Your task to perform on an android device: Show the shopping cart on amazon.com. Image 0: 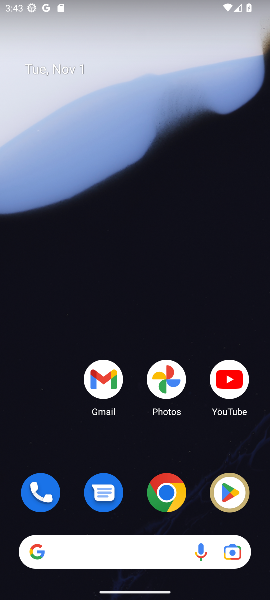
Step 0: click (167, 498)
Your task to perform on an android device: Show the shopping cart on amazon.com. Image 1: 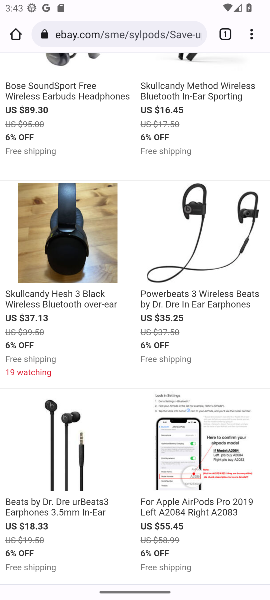
Step 1: click (87, 30)
Your task to perform on an android device: Show the shopping cart on amazon.com. Image 2: 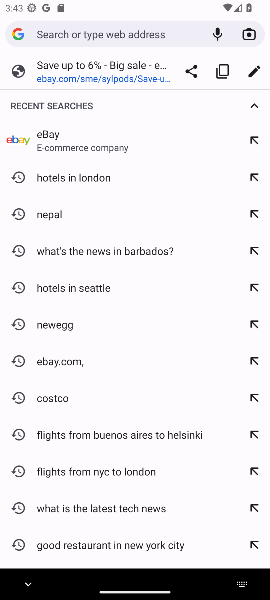
Step 2: type "amazon.com"
Your task to perform on an android device: Show the shopping cart on amazon.com. Image 3: 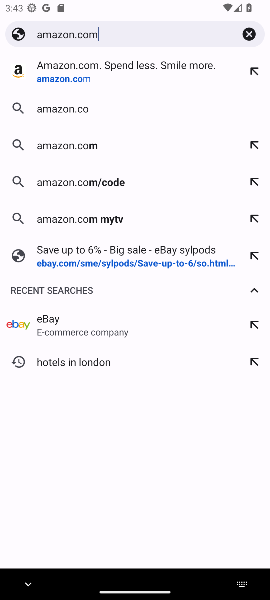
Step 3: type ""
Your task to perform on an android device: Show the shopping cart on amazon.com. Image 4: 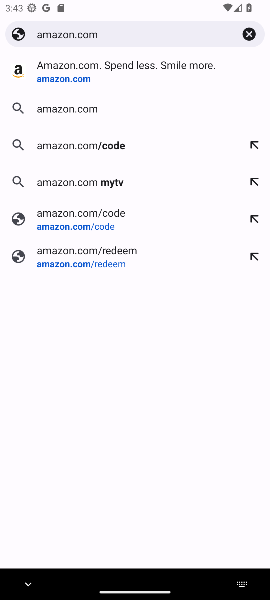
Step 4: click (52, 83)
Your task to perform on an android device: Show the shopping cart on amazon.com. Image 5: 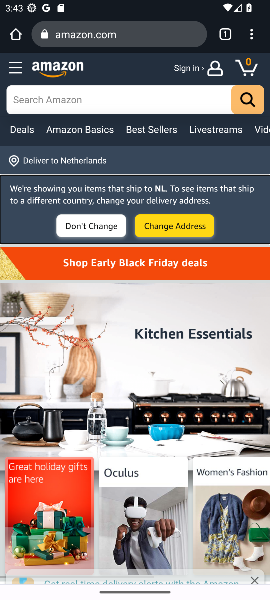
Step 5: click (98, 226)
Your task to perform on an android device: Show the shopping cart on amazon.com. Image 6: 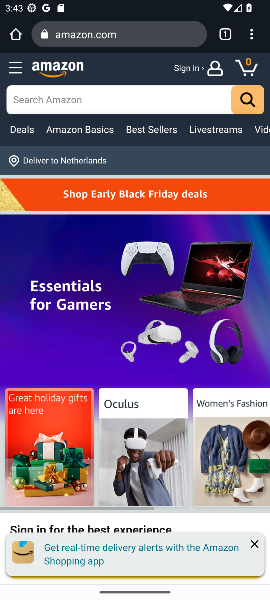
Step 6: click (241, 69)
Your task to perform on an android device: Show the shopping cart on amazon.com. Image 7: 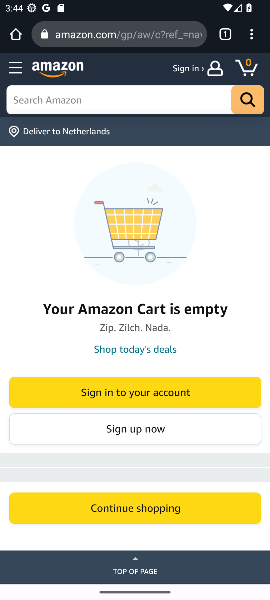
Step 7: drag from (128, 422) to (155, 226)
Your task to perform on an android device: Show the shopping cart on amazon.com. Image 8: 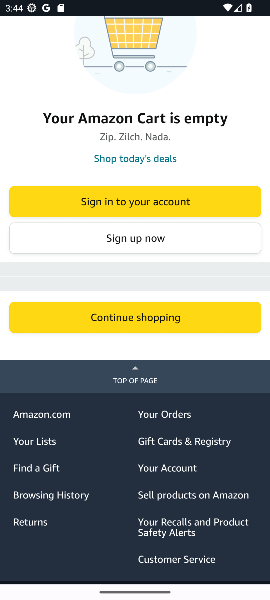
Step 8: click (143, 323)
Your task to perform on an android device: Show the shopping cart on amazon.com. Image 9: 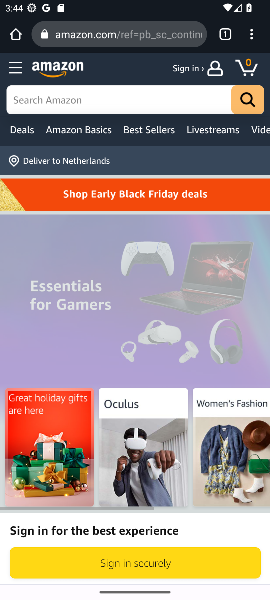
Step 9: drag from (155, 410) to (191, 241)
Your task to perform on an android device: Show the shopping cart on amazon.com. Image 10: 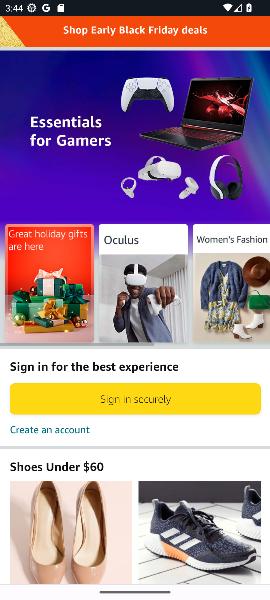
Step 10: drag from (167, 321) to (178, 174)
Your task to perform on an android device: Show the shopping cart on amazon.com. Image 11: 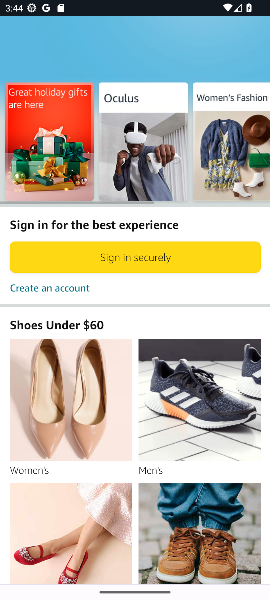
Step 11: click (181, 147)
Your task to perform on an android device: Show the shopping cart on amazon.com. Image 12: 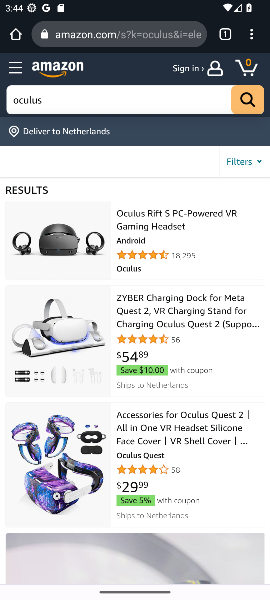
Step 12: drag from (185, 181) to (191, 142)
Your task to perform on an android device: Show the shopping cart on amazon.com. Image 13: 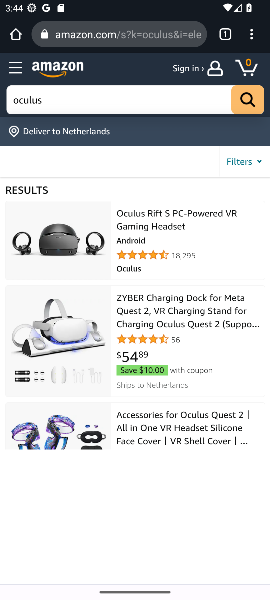
Step 13: drag from (129, 378) to (170, 129)
Your task to perform on an android device: Show the shopping cart on amazon.com. Image 14: 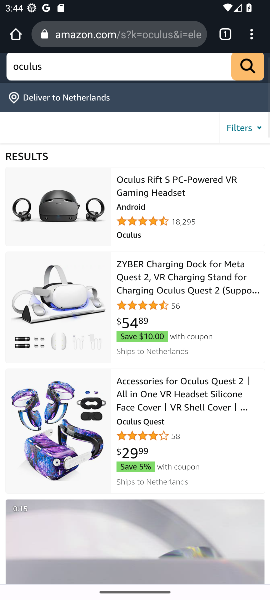
Step 14: drag from (123, 354) to (173, 141)
Your task to perform on an android device: Show the shopping cart on amazon.com. Image 15: 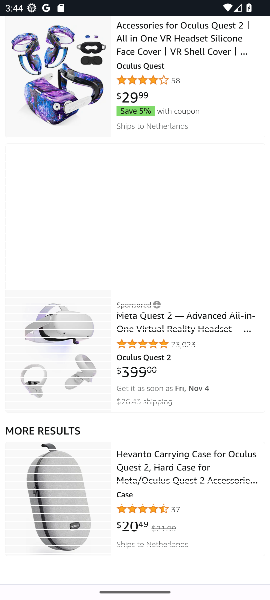
Step 15: drag from (131, 318) to (174, 145)
Your task to perform on an android device: Show the shopping cart on amazon.com. Image 16: 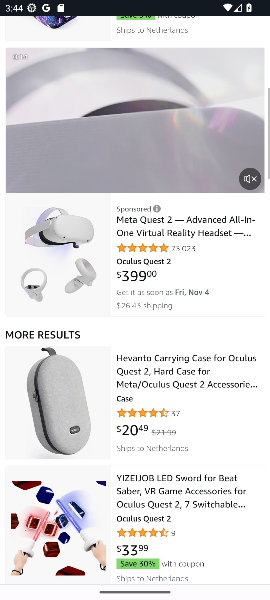
Step 16: drag from (170, 288) to (184, 161)
Your task to perform on an android device: Show the shopping cart on amazon.com. Image 17: 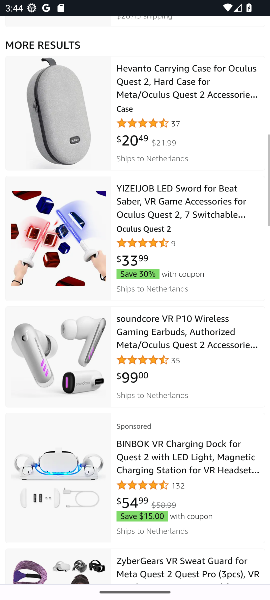
Step 17: drag from (161, 336) to (184, 149)
Your task to perform on an android device: Show the shopping cart on amazon.com. Image 18: 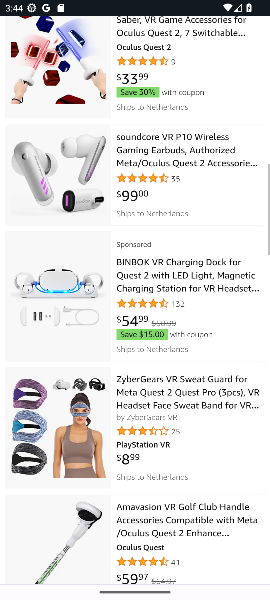
Step 18: drag from (188, 281) to (212, 99)
Your task to perform on an android device: Show the shopping cart on amazon.com. Image 19: 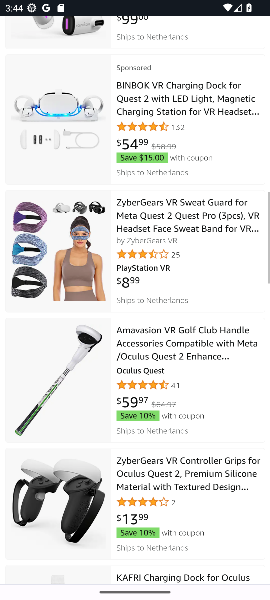
Step 19: drag from (162, 272) to (192, 148)
Your task to perform on an android device: Show the shopping cart on amazon.com. Image 20: 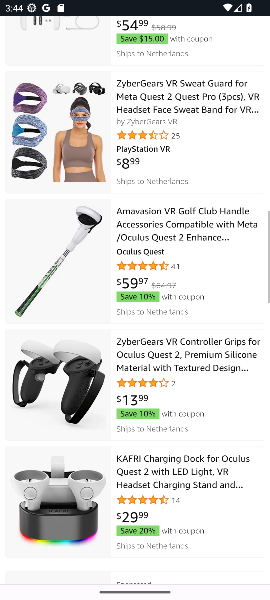
Step 20: drag from (167, 200) to (177, 152)
Your task to perform on an android device: Show the shopping cart on amazon.com. Image 21: 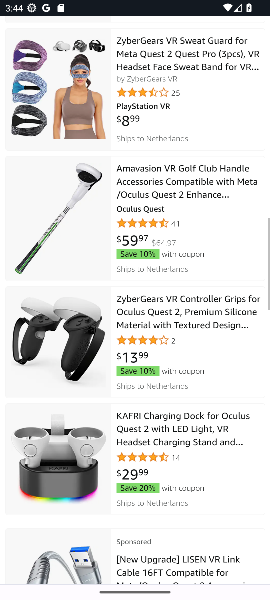
Step 21: drag from (148, 398) to (167, 86)
Your task to perform on an android device: Show the shopping cart on amazon.com. Image 22: 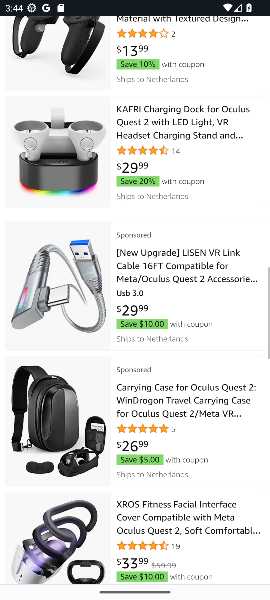
Step 22: drag from (136, 272) to (174, 91)
Your task to perform on an android device: Show the shopping cart on amazon.com. Image 23: 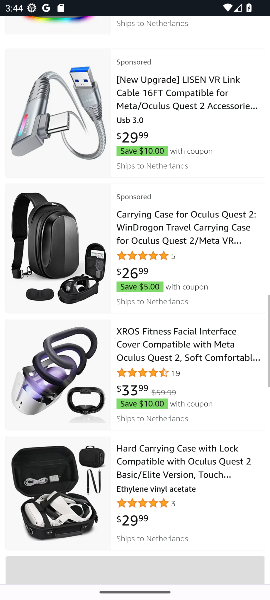
Step 23: drag from (183, 297) to (213, 140)
Your task to perform on an android device: Show the shopping cart on amazon.com. Image 24: 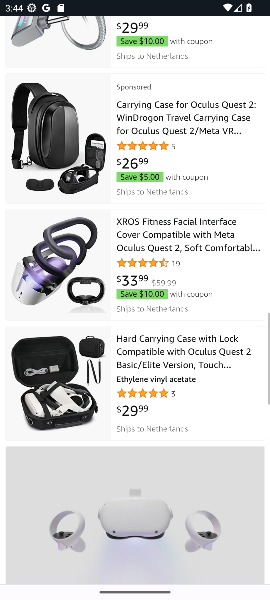
Step 24: drag from (146, 358) to (177, 149)
Your task to perform on an android device: Show the shopping cart on amazon.com. Image 25: 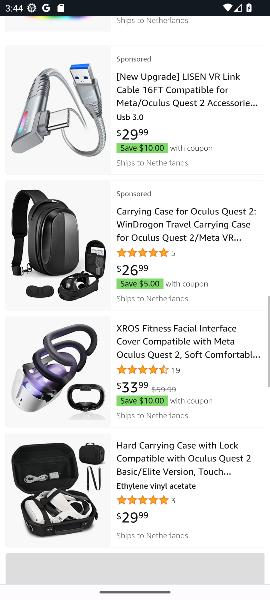
Step 25: drag from (168, 254) to (184, 139)
Your task to perform on an android device: Show the shopping cart on amazon.com. Image 26: 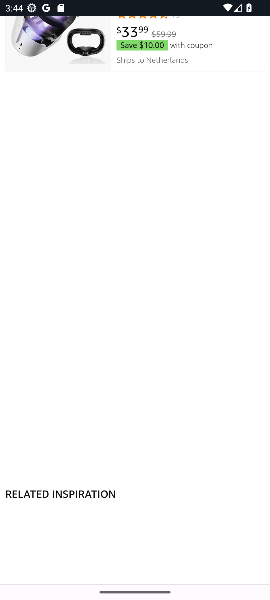
Step 26: drag from (185, 333) to (219, 148)
Your task to perform on an android device: Show the shopping cart on amazon.com. Image 27: 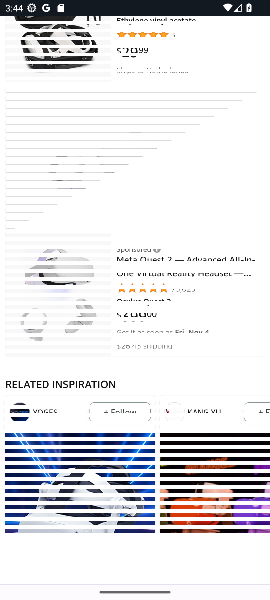
Step 27: drag from (227, 348) to (268, 135)
Your task to perform on an android device: Show the shopping cart on amazon.com. Image 28: 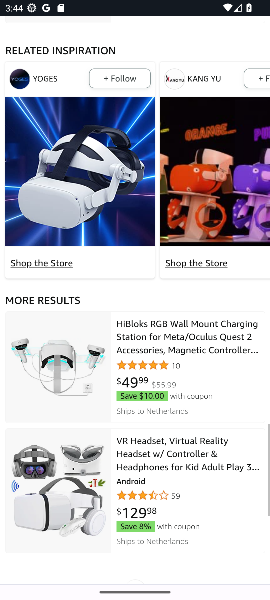
Step 28: click (212, 213)
Your task to perform on an android device: Show the shopping cart on amazon.com. Image 29: 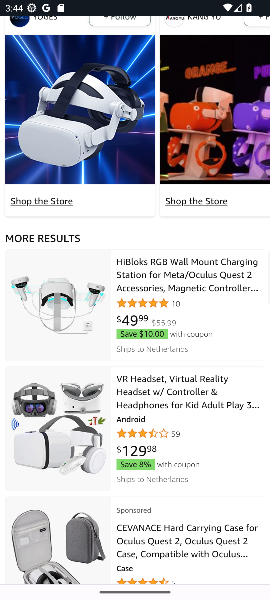
Step 29: press back button
Your task to perform on an android device: Show the shopping cart on amazon.com. Image 30: 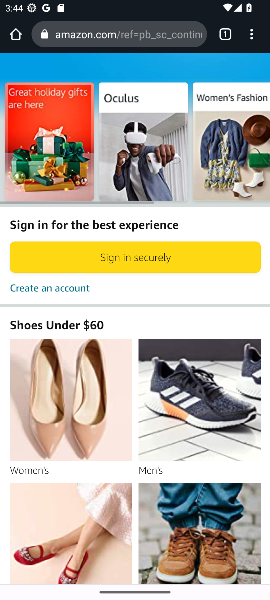
Step 30: drag from (128, 500) to (133, 281)
Your task to perform on an android device: Show the shopping cart on amazon.com. Image 31: 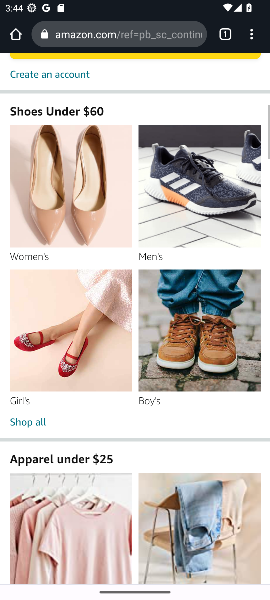
Step 31: drag from (66, 427) to (129, 210)
Your task to perform on an android device: Show the shopping cart on amazon.com. Image 32: 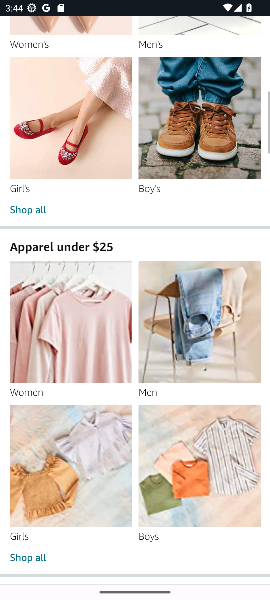
Step 32: drag from (98, 342) to (145, 183)
Your task to perform on an android device: Show the shopping cart on amazon.com. Image 33: 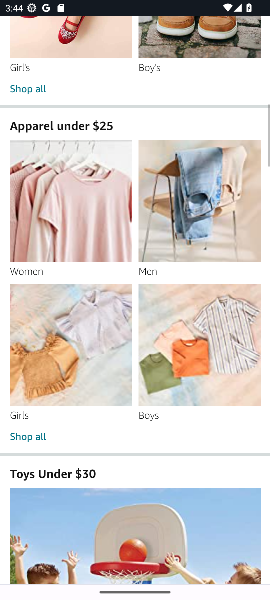
Step 33: drag from (142, 319) to (170, 135)
Your task to perform on an android device: Show the shopping cart on amazon.com. Image 34: 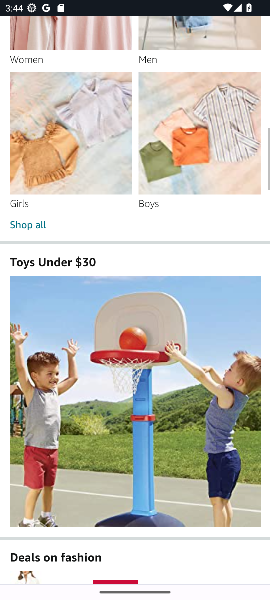
Step 34: drag from (141, 365) to (169, 89)
Your task to perform on an android device: Show the shopping cart on amazon.com. Image 35: 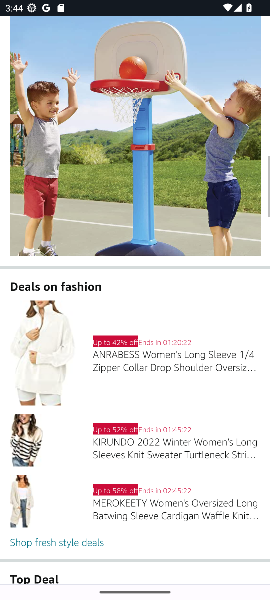
Step 35: drag from (149, 270) to (166, 68)
Your task to perform on an android device: Show the shopping cart on amazon.com. Image 36: 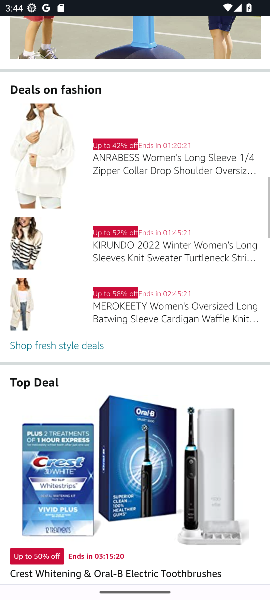
Step 36: drag from (123, 225) to (148, 114)
Your task to perform on an android device: Show the shopping cart on amazon.com. Image 37: 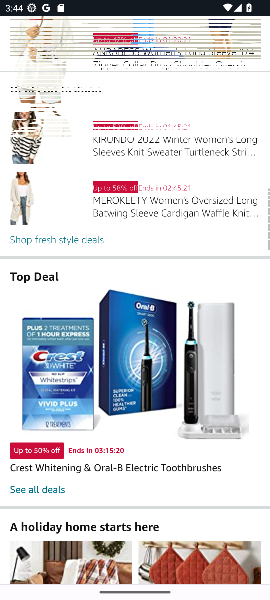
Step 37: drag from (159, 330) to (182, 169)
Your task to perform on an android device: Show the shopping cart on amazon.com. Image 38: 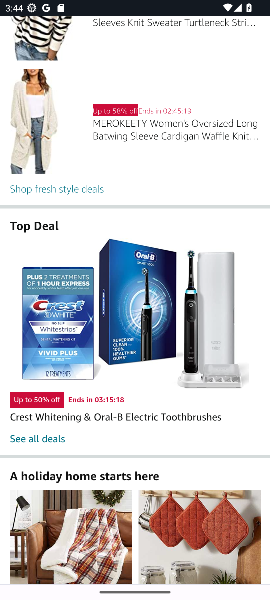
Step 38: click (213, 157)
Your task to perform on an android device: Show the shopping cart on amazon.com. Image 39: 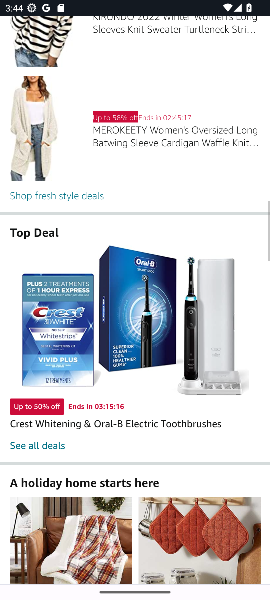
Step 39: drag from (186, 404) to (213, 160)
Your task to perform on an android device: Show the shopping cart on amazon.com. Image 40: 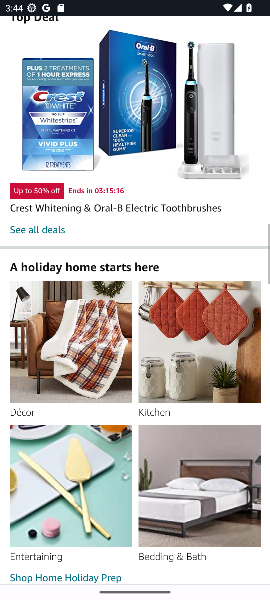
Step 40: drag from (168, 394) to (187, 191)
Your task to perform on an android device: Show the shopping cart on amazon.com. Image 41: 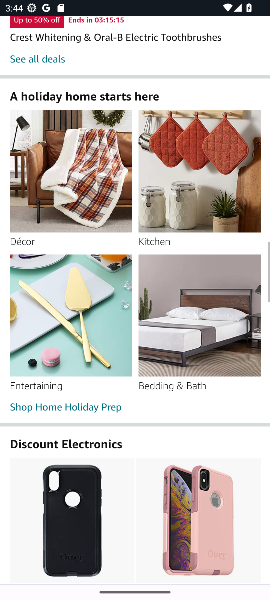
Step 41: drag from (154, 416) to (185, 177)
Your task to perform on an android device: Show the shopping cart on amazon.com. Image 42: 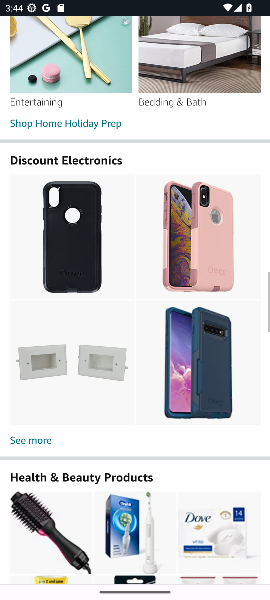
Step 42: drag from (182, 208) to (175, 253)
Your task to perform on an android device: Show the shopping cart on amazon.com. Image 43: 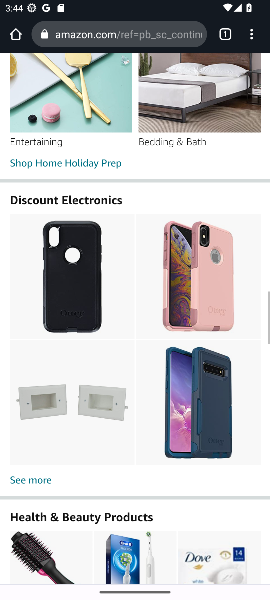
Step 43: drag from (158, 435) to (218, 204)
Your task to perform on an android device: Show the shopping cart on amazon.com. Image 44: 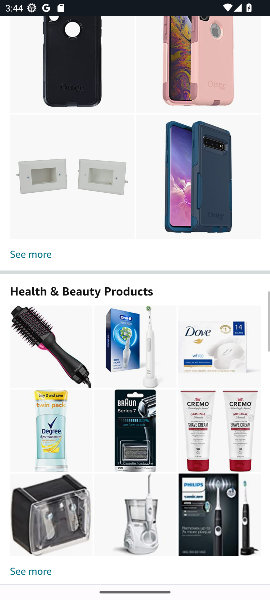
Step 44: drag from (200, 296) to (211, 234)
Your task to perform on an android device: Show the shopping cart on amazon.com. Image 45: 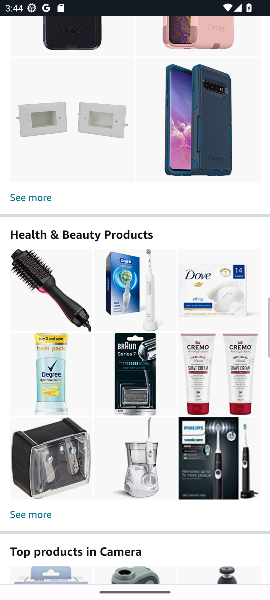
Step 45: drag from (169, 278) to (182, 179)
Your task to perform on an android device: Show the shopping cart on amazon.com. Image 46: 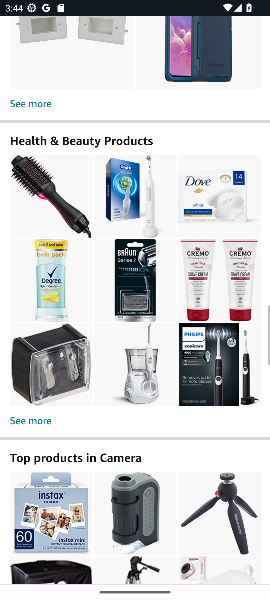
Step 46: drag from (187, 324) to (190, 187)
Your task to perform on an android device: Show the shopping cart on amazon.com. Image 47: 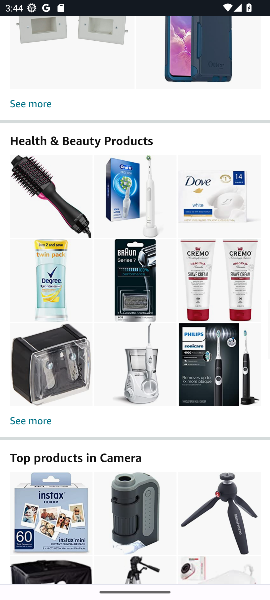
Step 47: drag from (170, 412) to (180, 200)
Your task to perform on an android device: Show the shopping cart on amazon.com. Image 48: 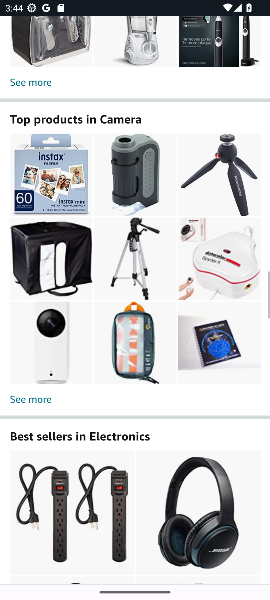
Step 48: drag from (156, 362) to (164, 177)
Your task to perform on an android device: Show the shopping cart on amazon.com. Image 49: 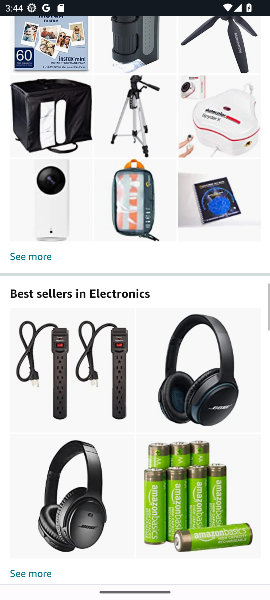
Step 49: drag from (183, 253) to (199, 169)
Your task to perform on an android device: Show the shopping cart on amazon.com. Image 50: 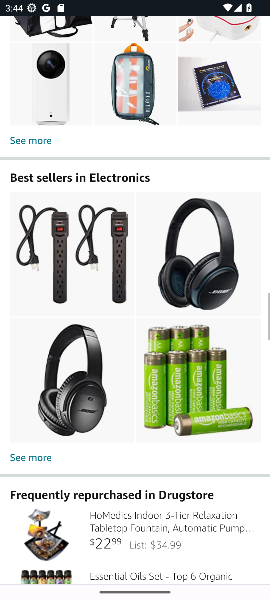
Step 50: drag from (192, 380) to (224, 163)
Your task to perform on an android device: Show the shopping cart on amazon.com. Image 51: 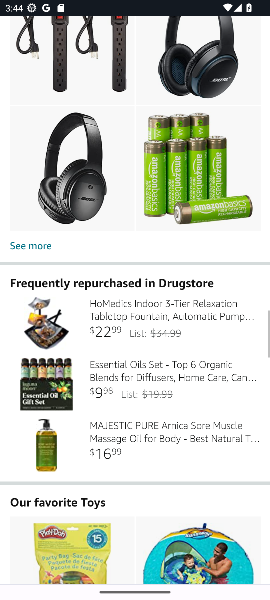
Step 51: drag from (201, 398) to (204, 129)
Your task to perform on an android device: Show the shopping cart on amazon.com. Image 52: 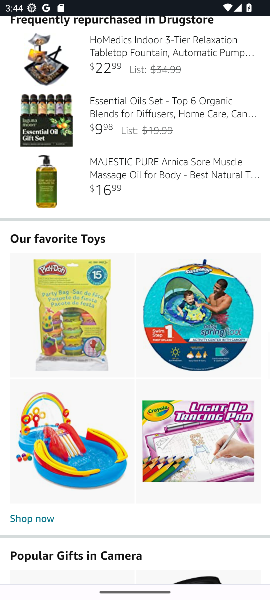
Step 52: click (194, 141)
Your task to perform on an android device: Show the shopping cart on amazon.com. Image 53: 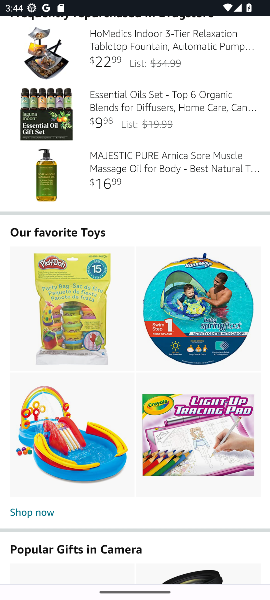
Step 53: task complete